Your task to perform on an android device: Open my contact list Image 0: 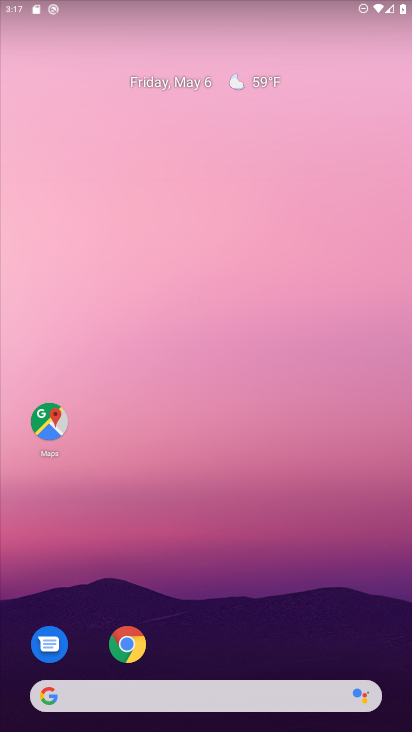
Step 0: drag from (208, 728) to (187, 278)
Your task to perform on an android device: Open my contact list Image 1: 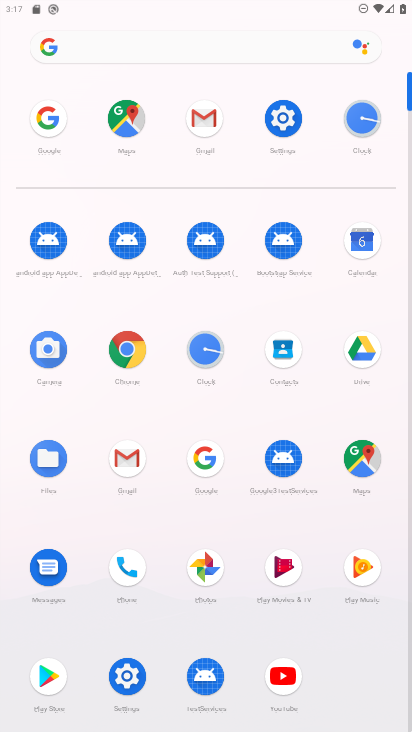
Step 1: click (280, 347)
Your task to perform on an android device: Open my contact list Image 2: 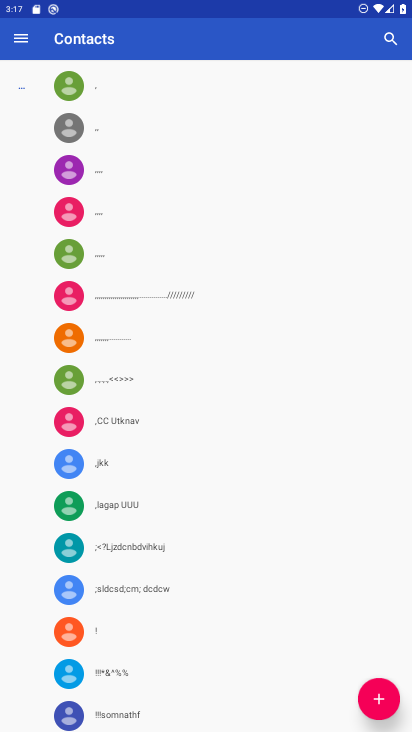
Step 2: task complete